Your task to perform on an android device: choose inbox layout in the gmail app Image 0: 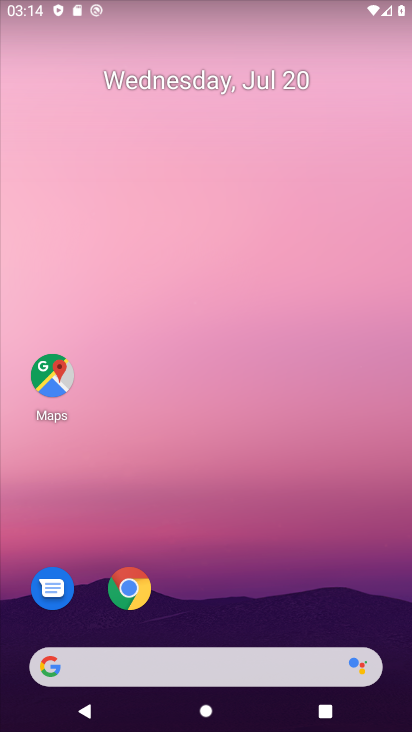
Step 0: drag from (196, 573) to (223, 5)
Your task to perform on an android device: choose inbox layout in the gmail app Image 1: 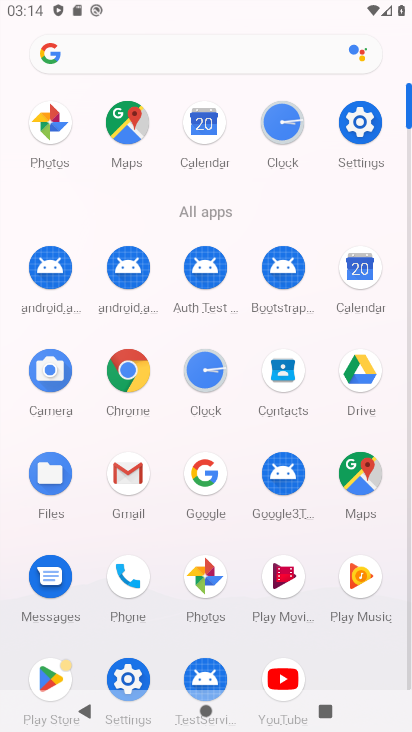
Step 1: click (124, 508)
Your task to perform on an android device: choose inbox layout in the gmail app Image 2: 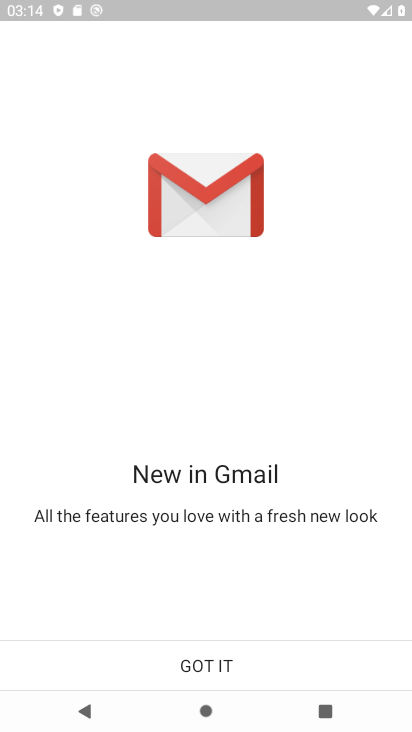
Step 2: click (203, 670)
Your task to perform on an android device: choose inbox layout in the gmail app Image 3: 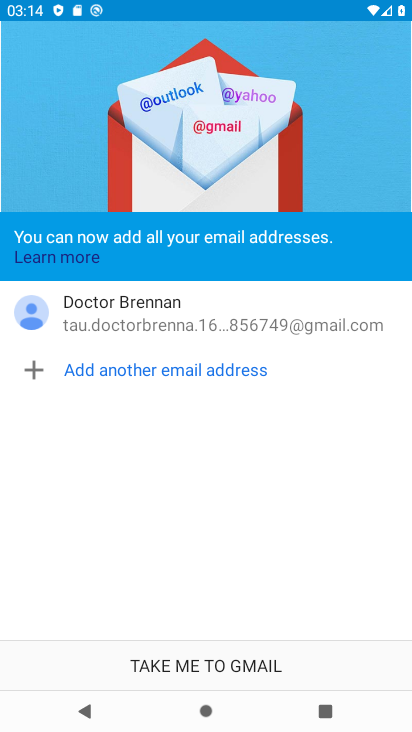
Step 3: click (207, 666)
Your task to perform on an android device: choose inbox layout in the gmail app Image 4: 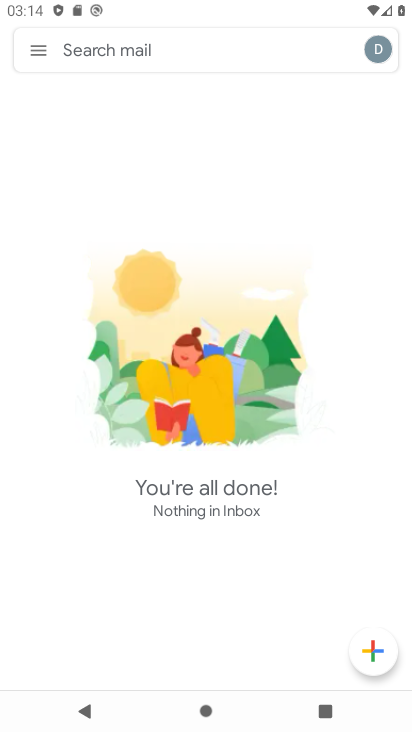
Step 4: click (39, 56)
Your task to perform on an android device: choose inbox layout in the gmail app Image 5: 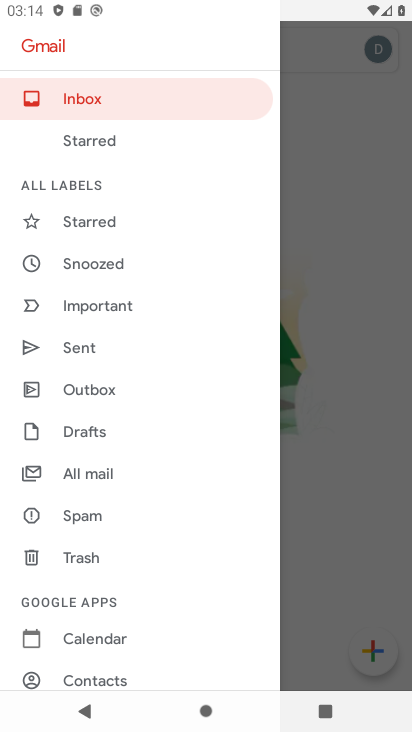
Step 5: drag from (114, 513) to (124, 385)
Your task to perform on an android device: choose inbox layout in the gmail app Image 6: 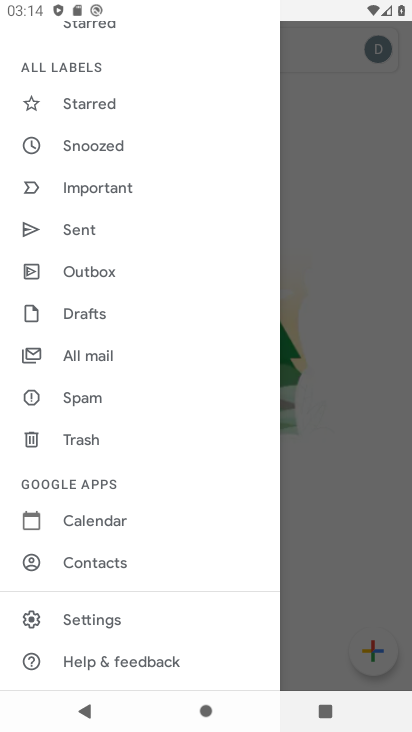
Step 6: click (74, 619)
Your task to perform on an android device: choose inbox layout in the gmail app Image 7: 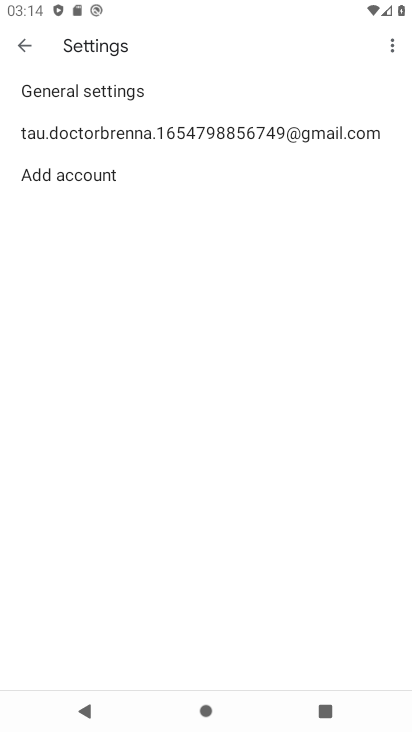
Step 7: click (179, 133)
Your task to perform on an android device: choose inbox layout in the gmail app Image 8: 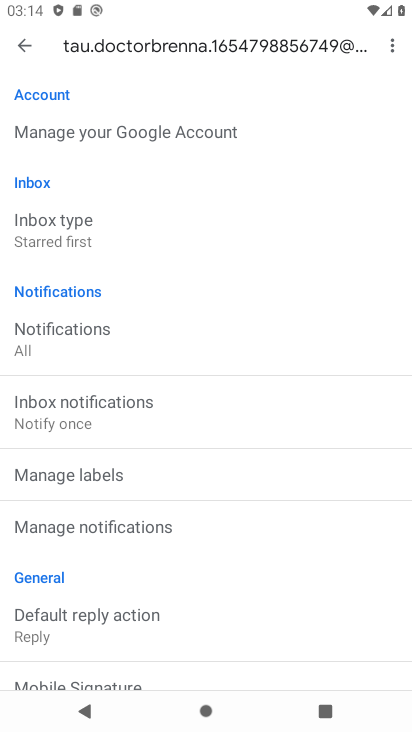
Step 8: click (71, 230)
Your task to perform on an android device: choose inbox layout in the gmail app Image 9: 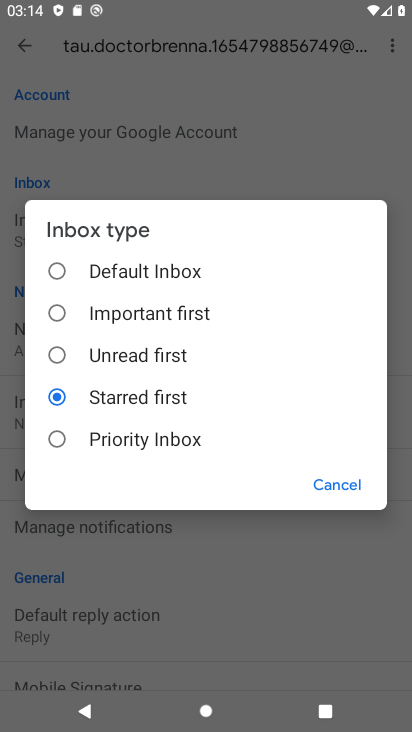
Step 9: click (55, 444)
Your task to perform on an android device: choose inbox layout in the gmail app Image 10: 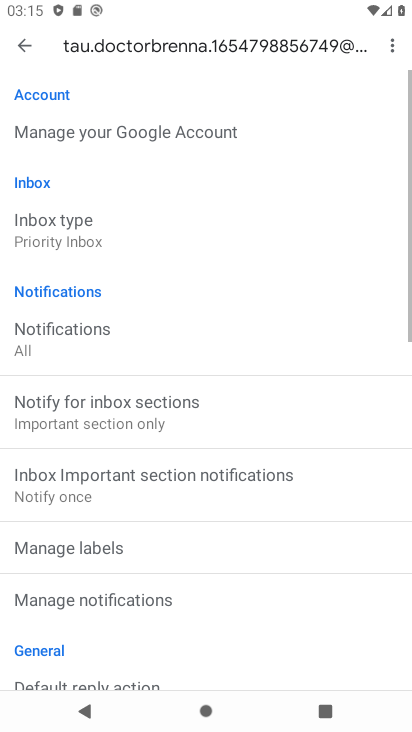
Step 10: task complete